Your task to perform on an android device: delete location history Image 0: 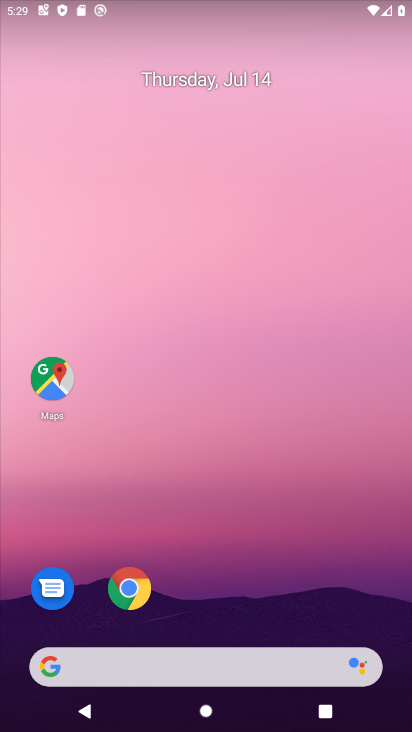
Step 0: drag from (197, 650) to (209, 360)
Your task to perform on an android device: delete location history Image 1: 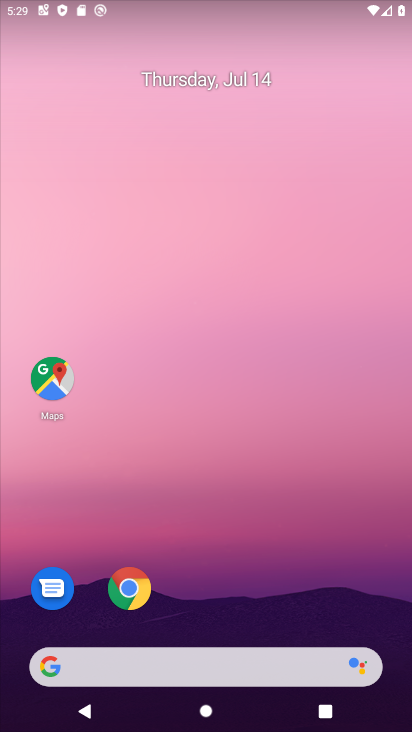
Step 1: drag from (255, 640) to (291, 351)
Your task to perform on an android device: delete location history Image 2: 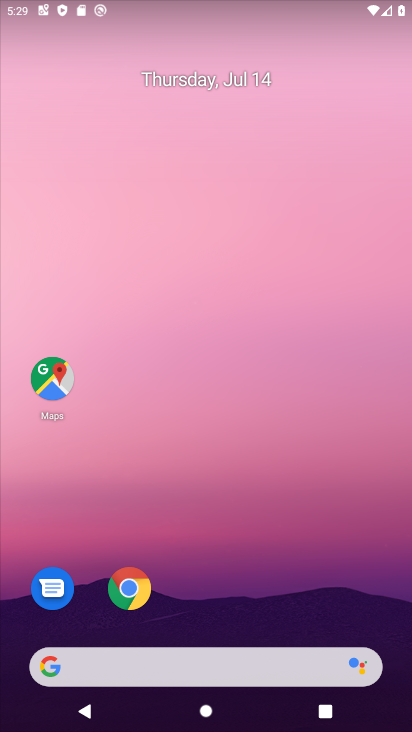
Step 2: drag from (230, 571) to (243, 330)
Your task to perform on an android device: delete location history Image 3: 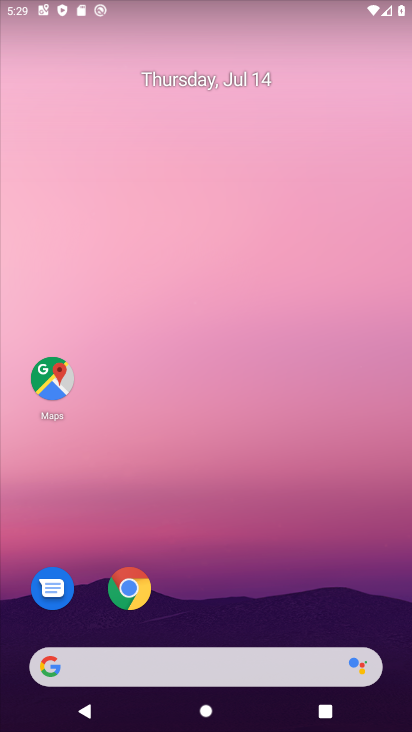
Step 3: drag from (217, 649) to (204, 300)
Your task to perform on an android device: delete location history Image 4: 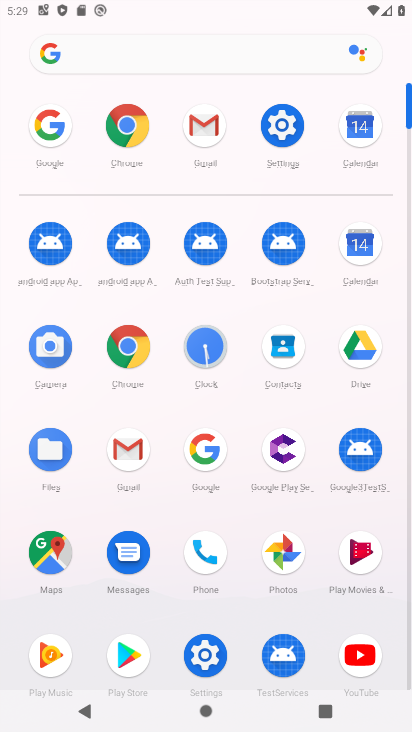
Step 4: click (297, 132)
Your task to perform on an android device: delete location history Image 5: 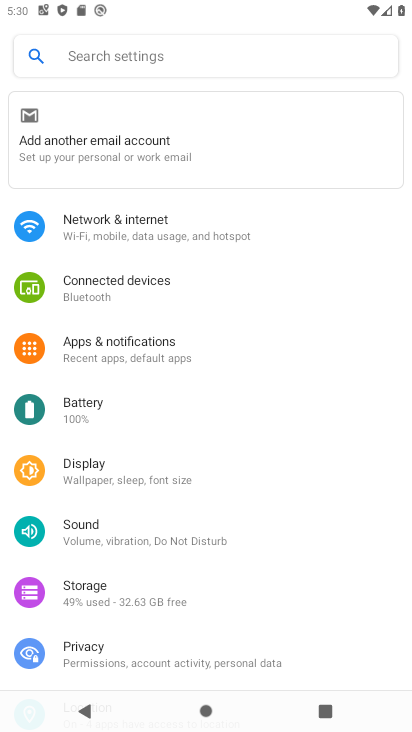
Step 5: drag from (93, 649) to (127, 270)
Your task to perform on an android device: delete location history Image 6: 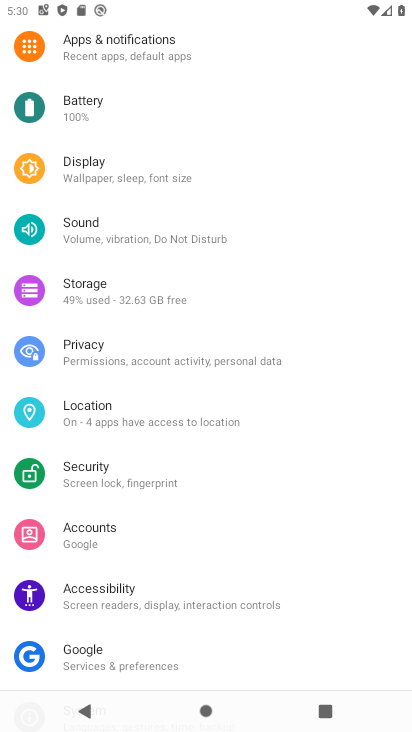
Step 6: click (73, 414)
Your task to perform on an android device: delete location history Image 7: 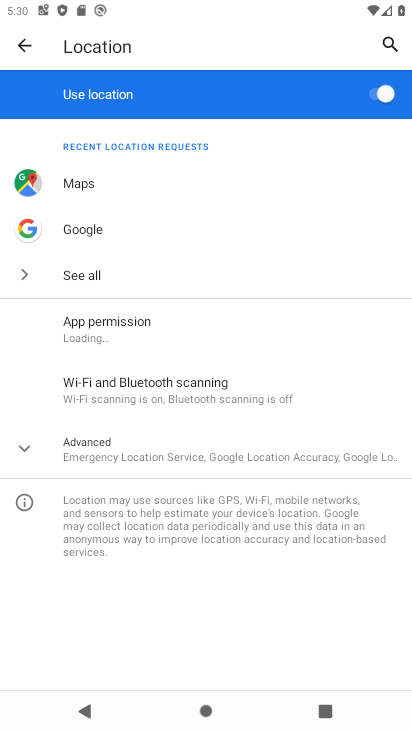
Step 7: click (84, 457)
Your task to perform on an android device: delete location history Image 8: 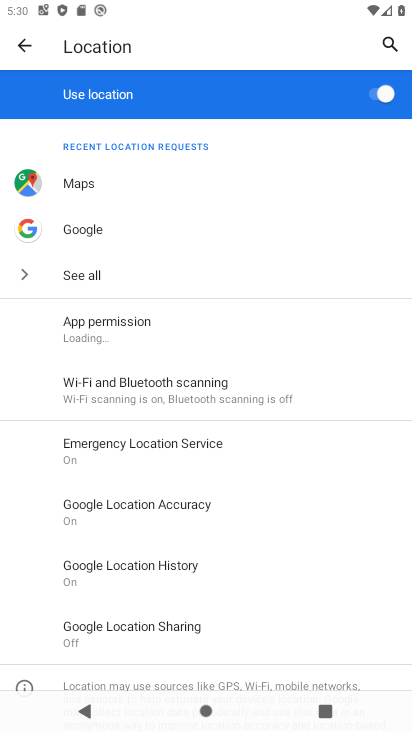
Step 8: click (122, 560)
Your task to perform on an android device: delete location history Image 9: 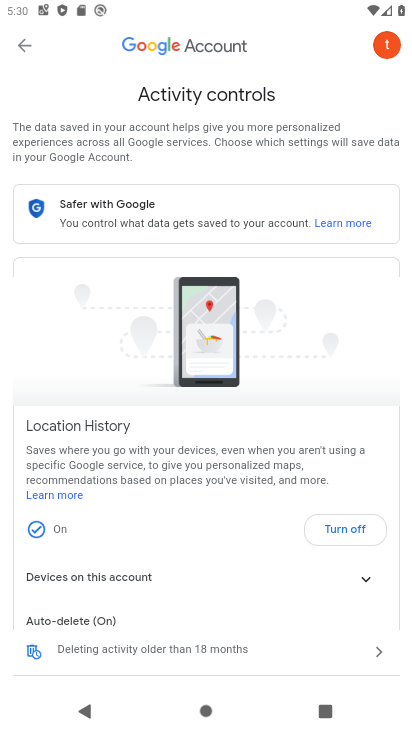
Step 9: drag from (116, 638) to (115, 233)
Your task to perform on an android device: delete location history Image 10: 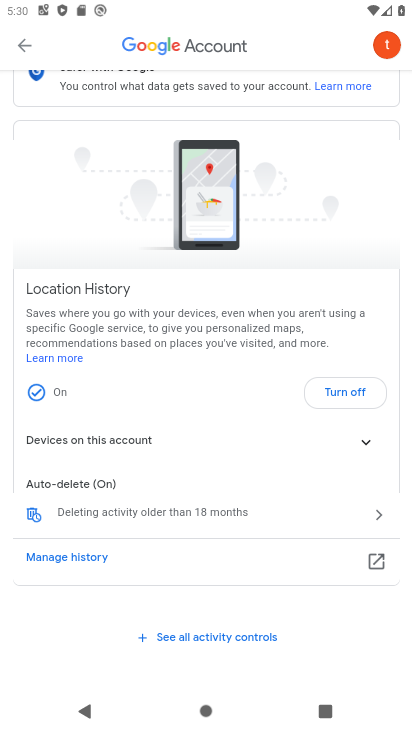
Step 10: click (90, 505)
Your task to perform on an android device: delete location history Image 11: 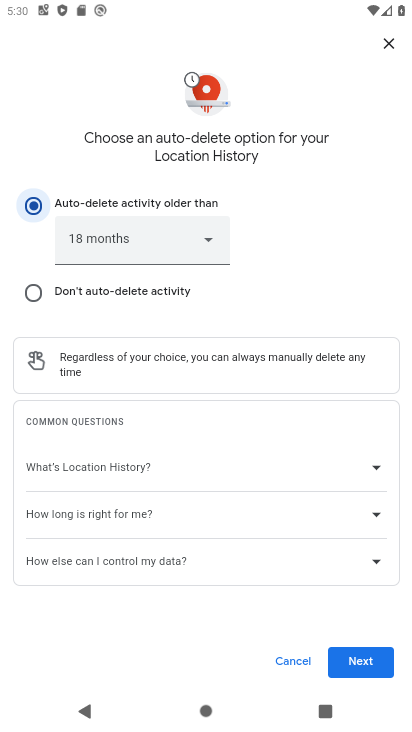
Step 11: click (355, 670)
Your task to perform on an android device: delete location history Image 12: 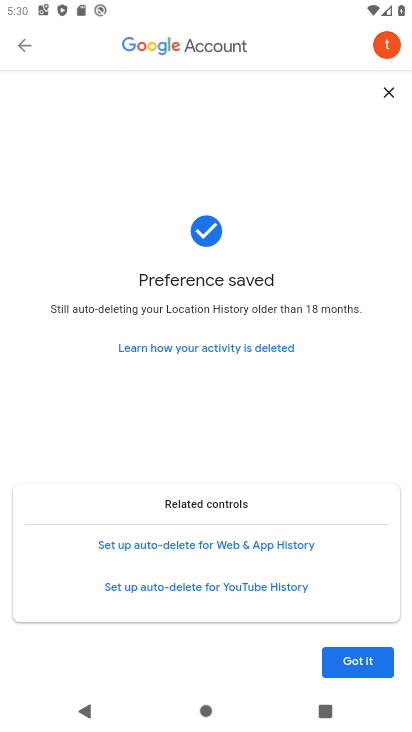
Step 12: click (350, 674)
Your task to perform on an android device: delete location history Image 13: 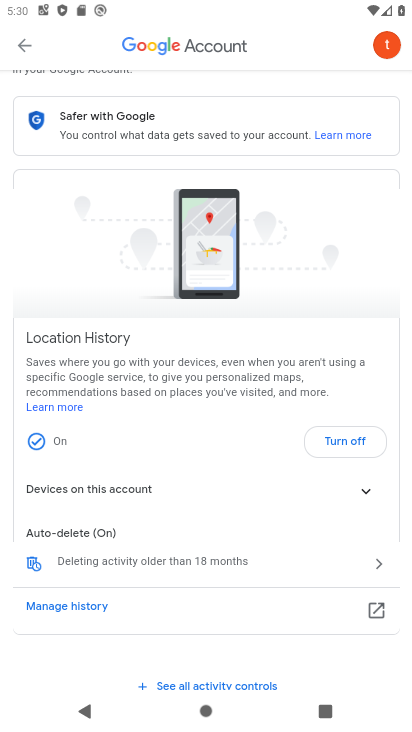
Step 13: task complete